Your task to perform on an android device: set an alarm Image 0: 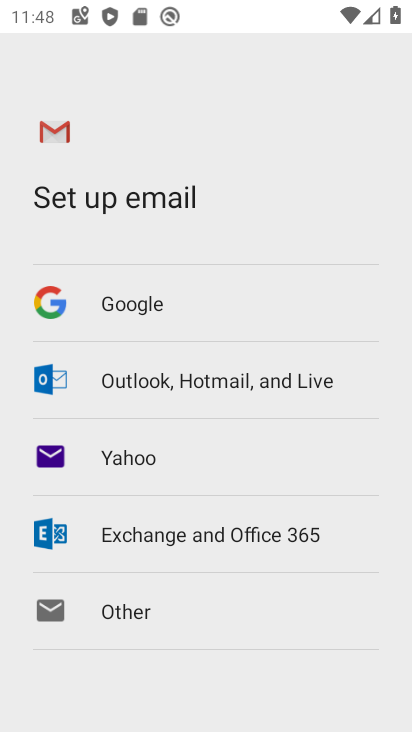
Step 0: click (268, 566)
Your task to perform on an android device: set an alarm Image 1: 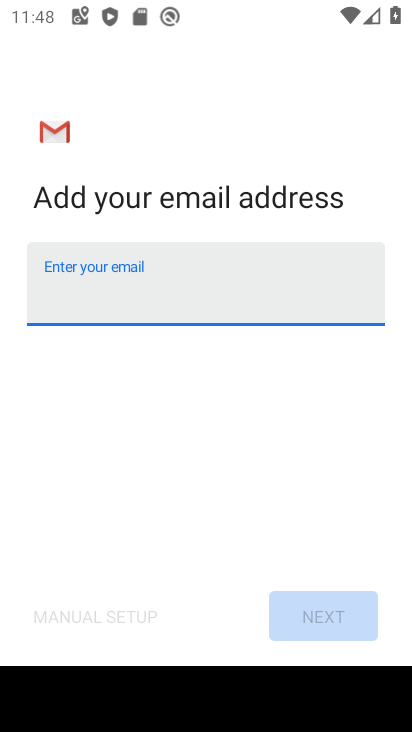
Step 1: press back button
Your task to perform on an android device: set an alarm Image 2: 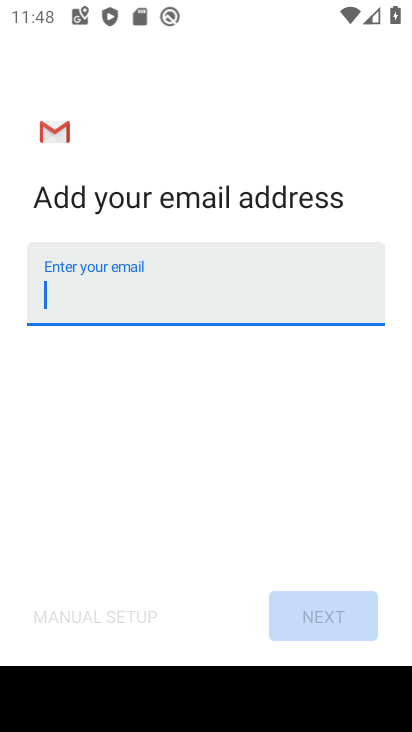
Step 2: press home button
Your task to perform on an android device: set an alarm Image 3: 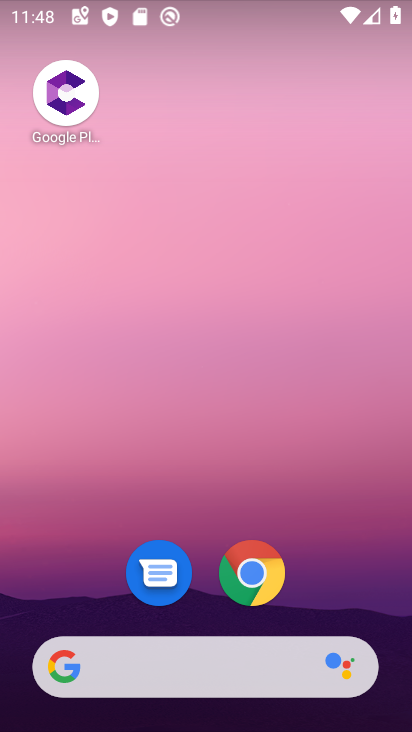
Step 3: drag from (214, 586) to (255, 16)
Your task to perform on an android device: set an alarm Image 4: 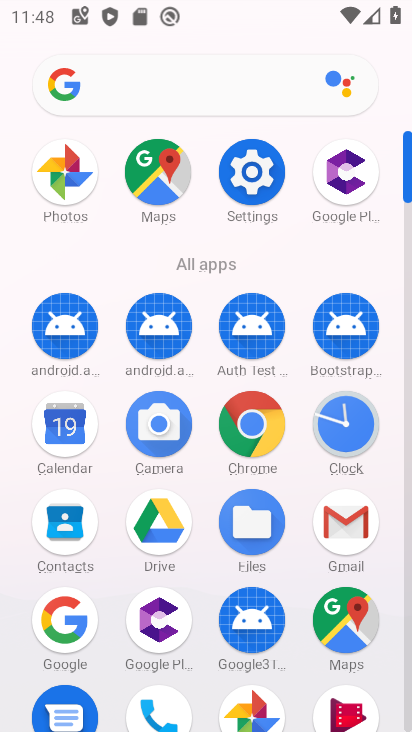
Step 4: click (350, 436)
Your task to perform on an android device: set an alarm Image 5: 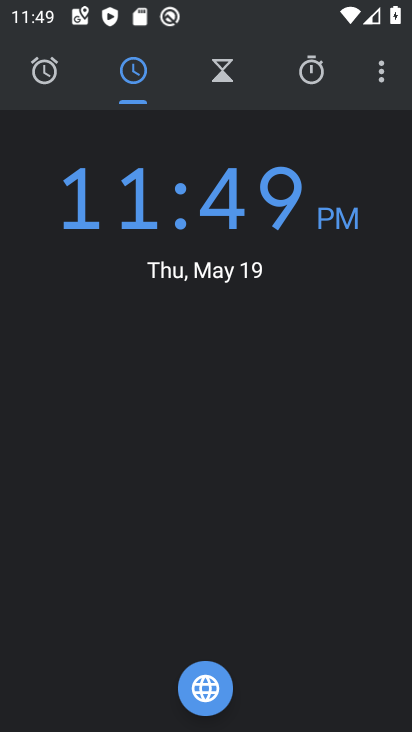
Step 5: click (47, 96)
Your task to perform on an android device: set an alarm Image 6: 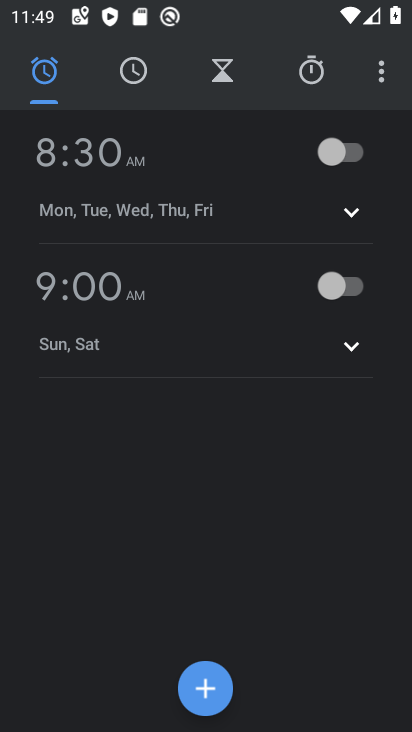
Step 6: click (68, 311)
Your task to perform on an android device: set an alarm Image 7: 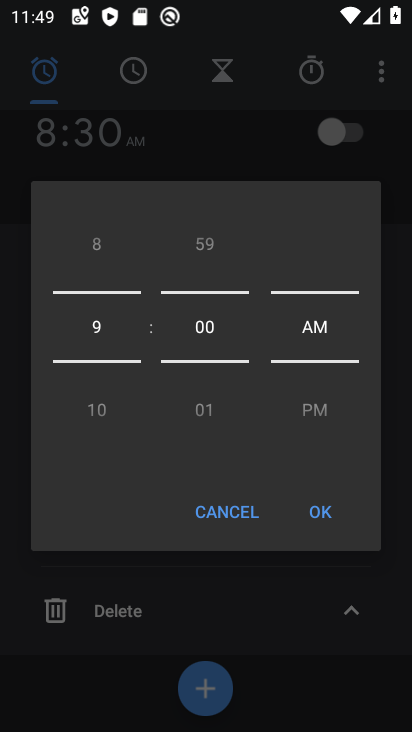
Step 7: drag from (103, 385) to (98, 483)
Your task to perform on an android device: set an alarm Image 8: 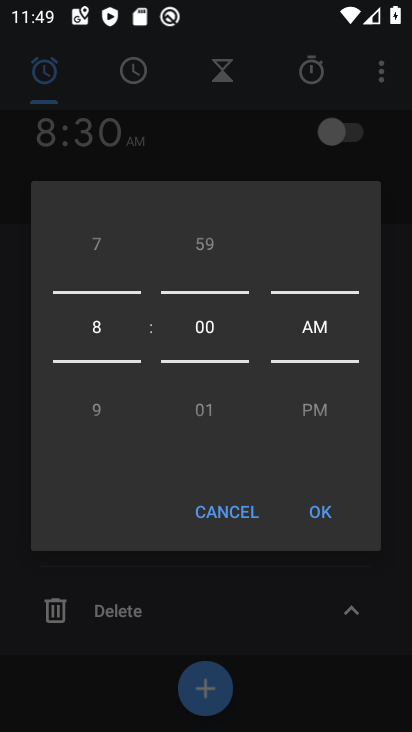
Step 8: drag from (200, 316) to (208, 509)
Your task to perform on an android device: set an alarm Image 9: 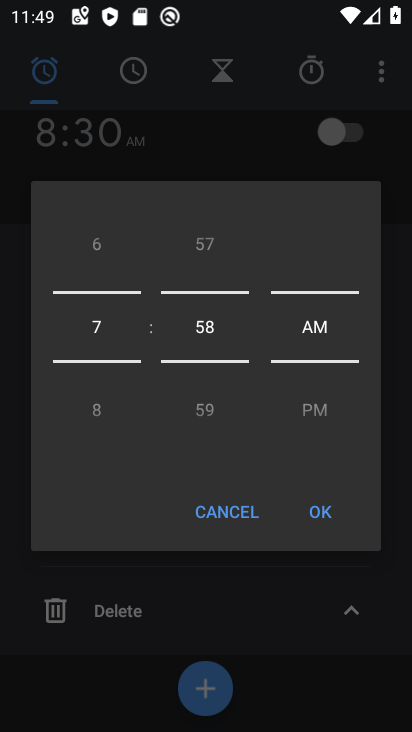
Step 9: drag from (319, 343) to (331, 52)
Your task to perform on an android device: set an alarm Image 10: 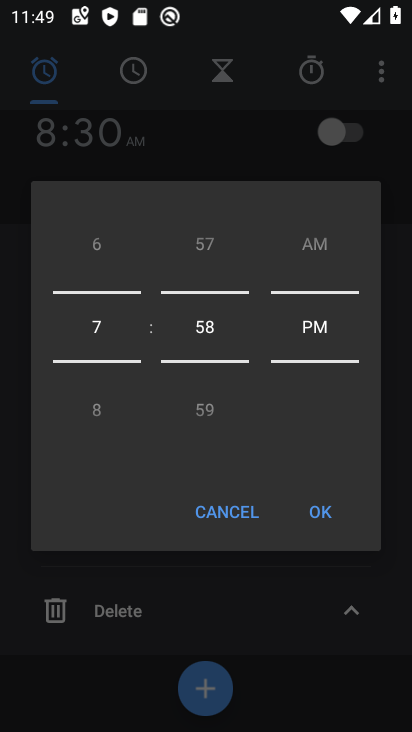
Step 10: click (328, 519)
Your task to perform on an android device: set an alarm Image 11: 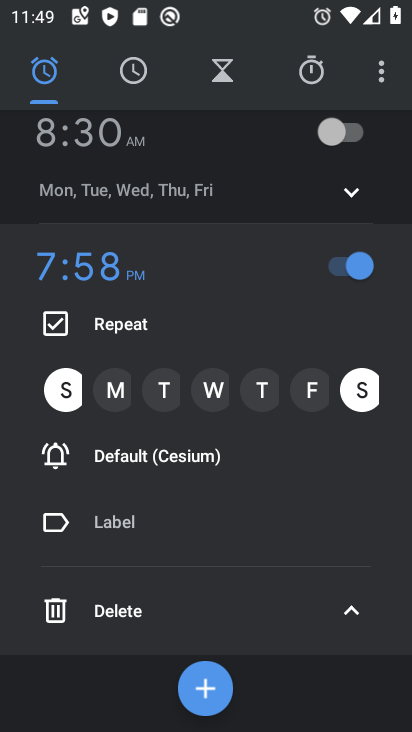
Step 11: click (219, 395)
Your task to perform on an android device: set an alarm Image 12: 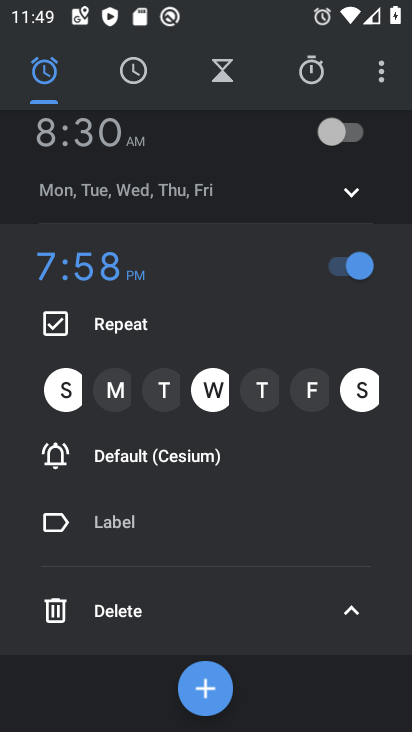
Step 12: task complete